Your task to perform on an android device: Search for top rated burger restaurants on Google Maps Image 0: 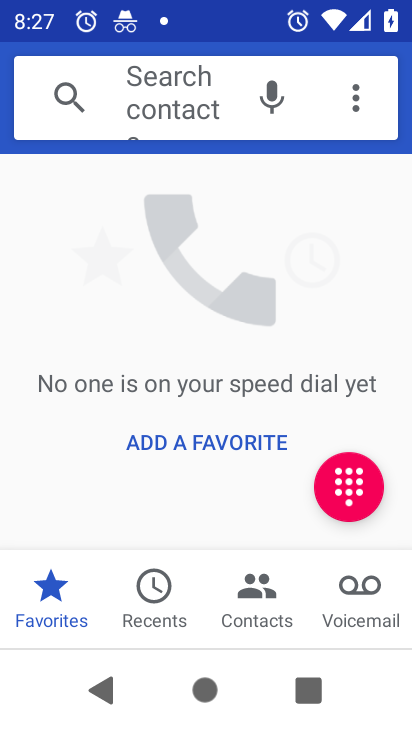
Step 0: press home button
Your task to perform on an android device: Search for top rated burger restaurants on Google Maps Image 1: 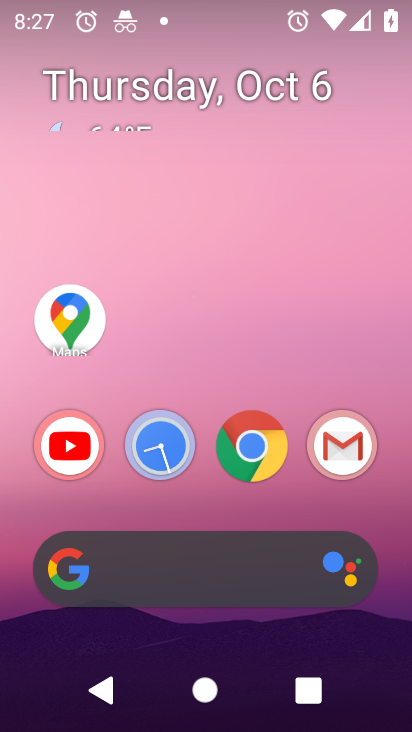
Step 1: click (73, 344)
Your task to perform on an android device: Search for top rated burger restaurants on Google Maps Image 2: 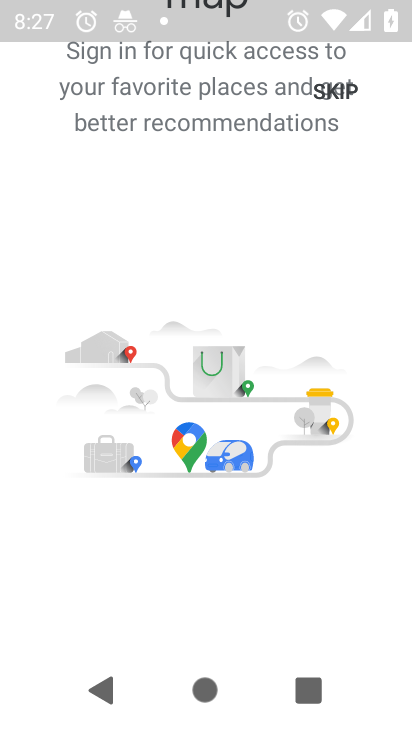
Step 2: click (342, 93)
Your task to perform on an android device: Search for top rated burger restaurants on Google Maps Image 3: 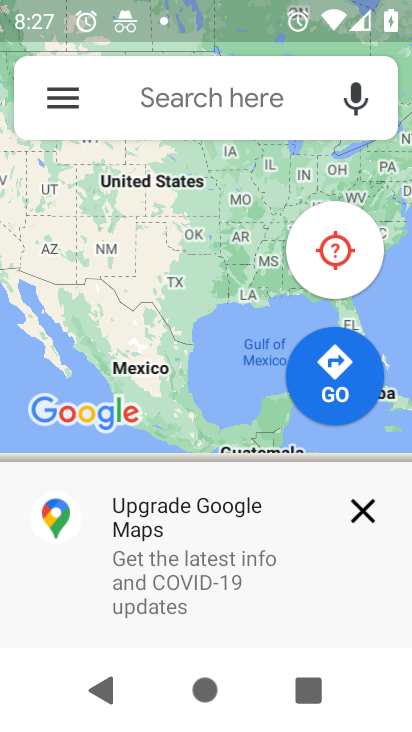
Step 3: click (352, 498)
Your task to perform on an android device: Search for top rated burger restaurants on Google Maps Image 4: 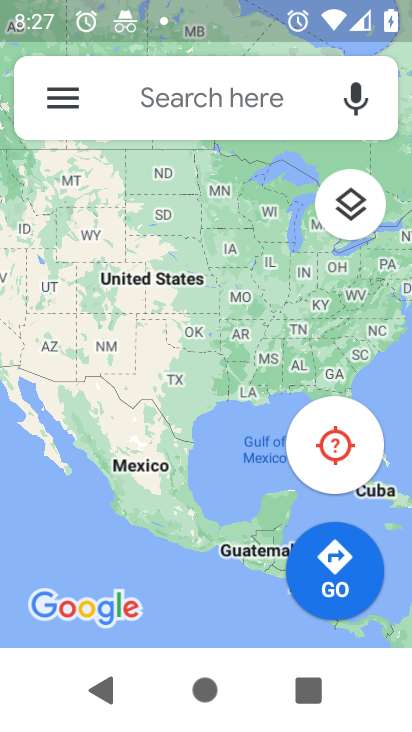
Step 4: click (181, 108)
Your task to perform on an android device: Search for top rated burger restaurants on Google Maps Image 5: 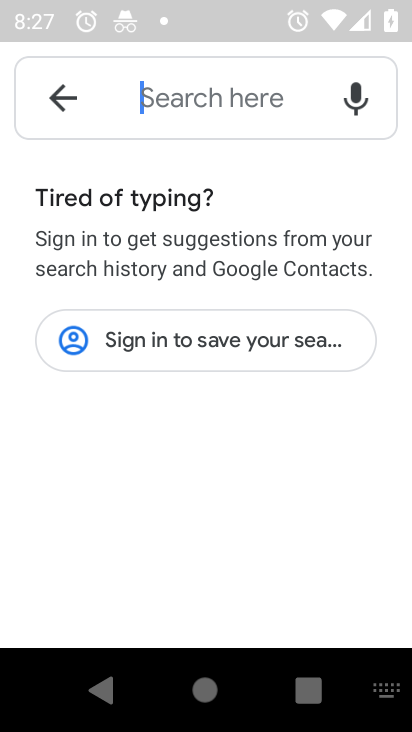
Step 5: type "top rated burger restaurants "
Your task to perform on an android device: Search for top rated burger restaurants on Google Maps Image 6: 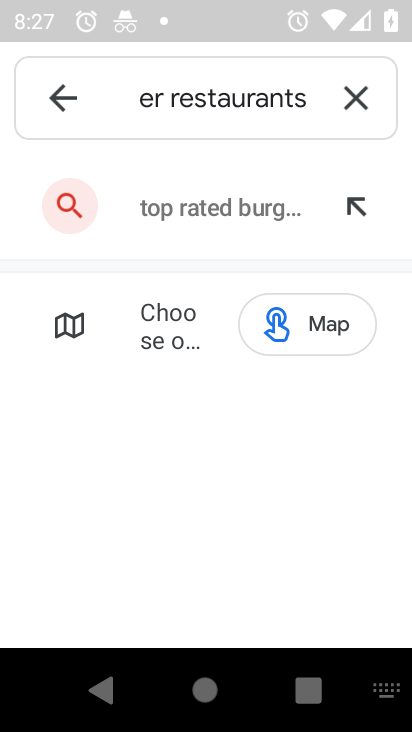
Step 6: click (228, 226)
Your task to perform on an android device: Search for top rated burger restaurants on Google Maps Image 7: 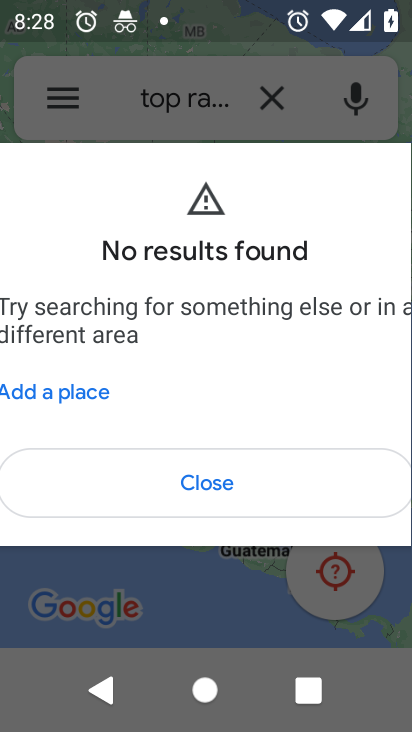
Step 7: click (176, 490)
Your task to perform on an android device: Search for top rated burger restaurants on Google Maps Image 8: 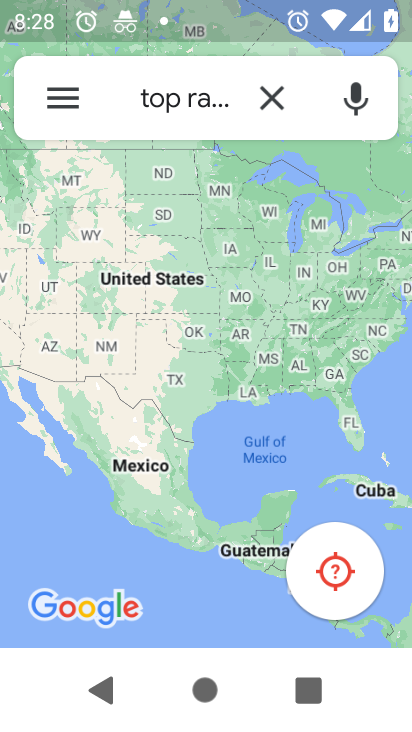
Step 8: task complete